Your task to perform on an android device: turn off wifi Image 0: 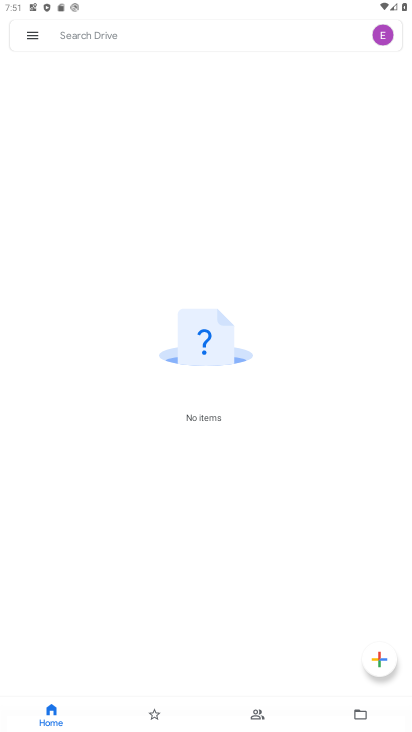
Step 0: press home button
Your task to perform on an android device: turn off wifi Image 1: 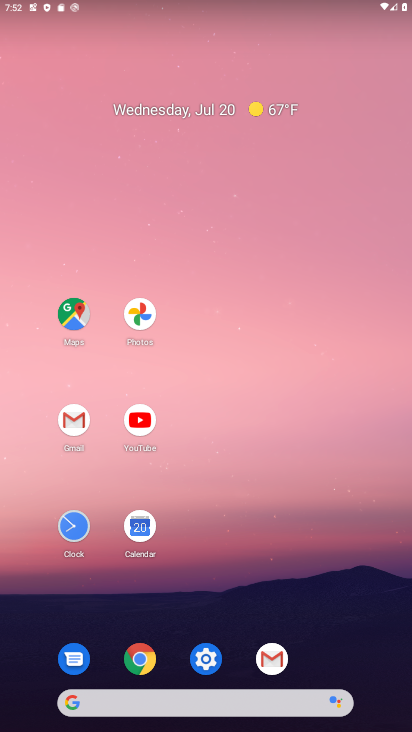
Step 1: click (201, 659)
Your task to perform on an android device: turn off wifi Image 2: 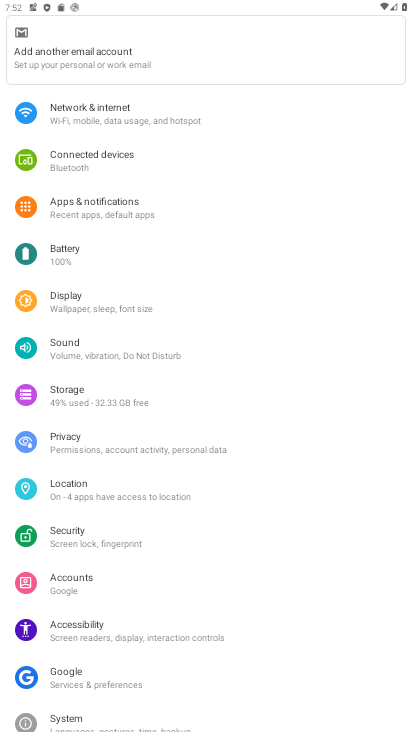
Step 2: click (67, 103)
Your task to perform on an android device: turn off wifi Image 3: 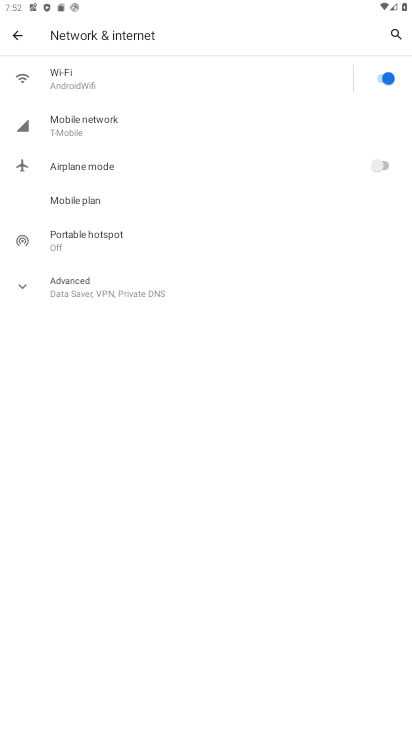
Step 3: click (381, 78)
Your task to perform on an android device: turn off wifi Image 4: 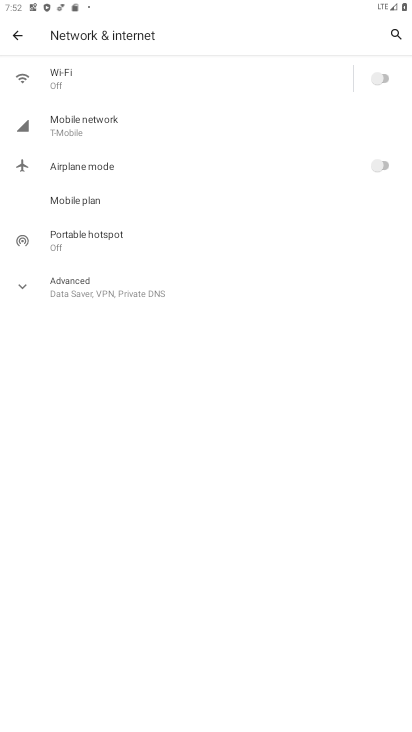
Step 4: task complete